Your task to perform on an android device: toggle priority inbox in the gmail app Image 0: 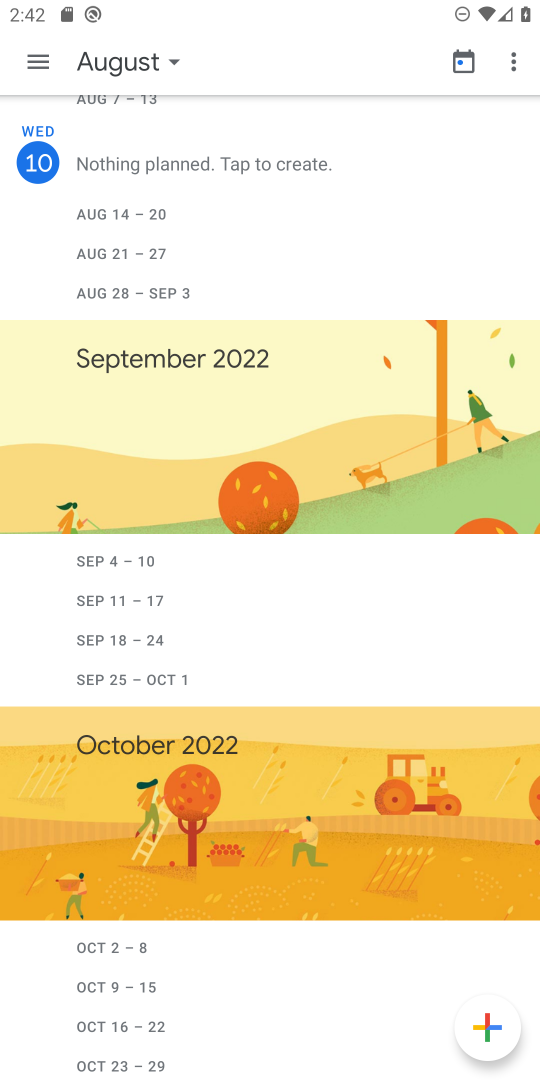
Step 0: press home button
Your task to perform on an android device: toggle priority inbox in the gmail app Image 1: 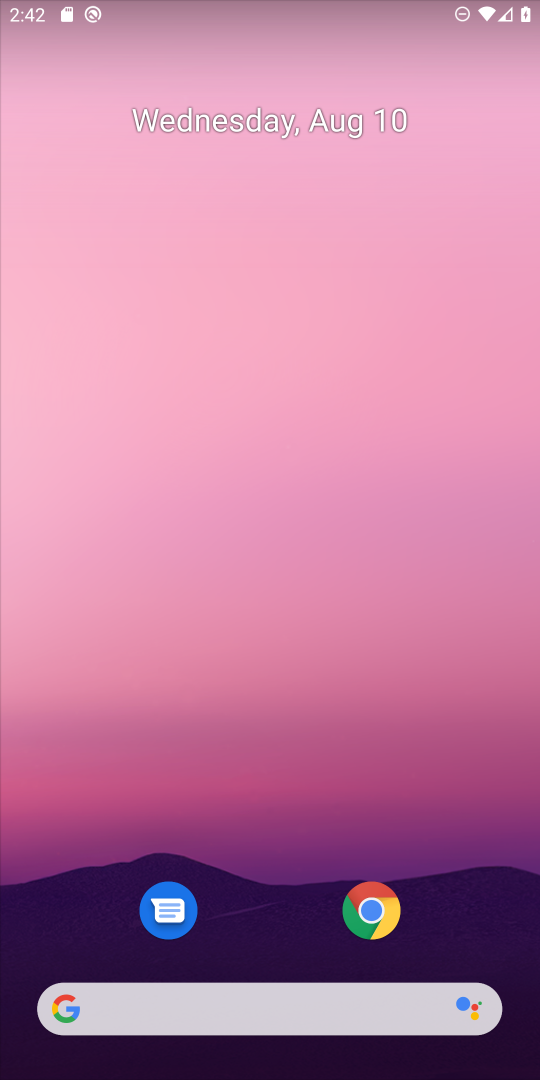
Step 1: drag from (258, 916) to (315, 343)
Your task to perform on an android device: toggle priority inbox in the gmail app Image 2: 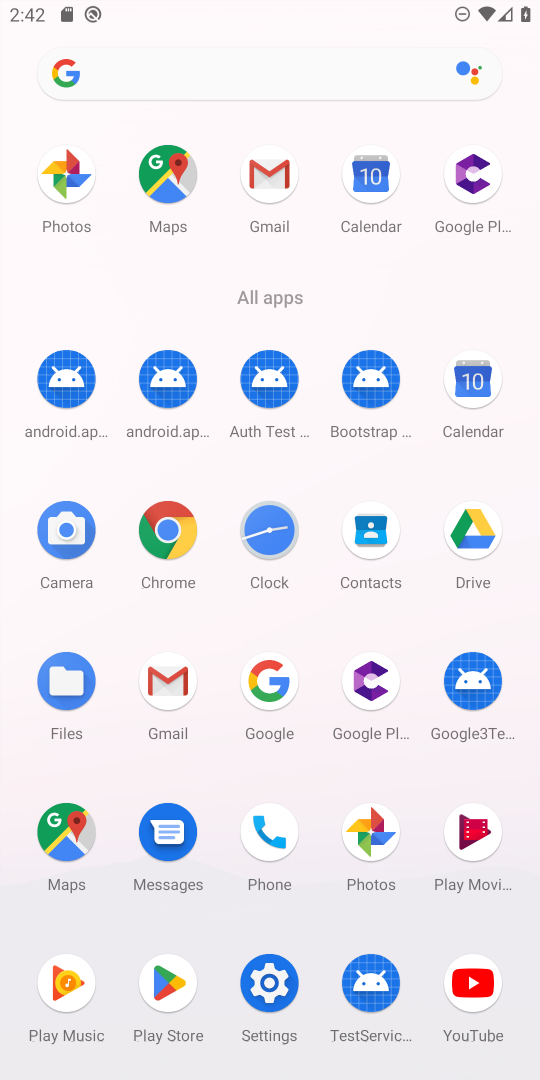
Step 2: click (279, 197)
Your task to perform on an android device: toggle priority inbox in the gmail app Image 3: 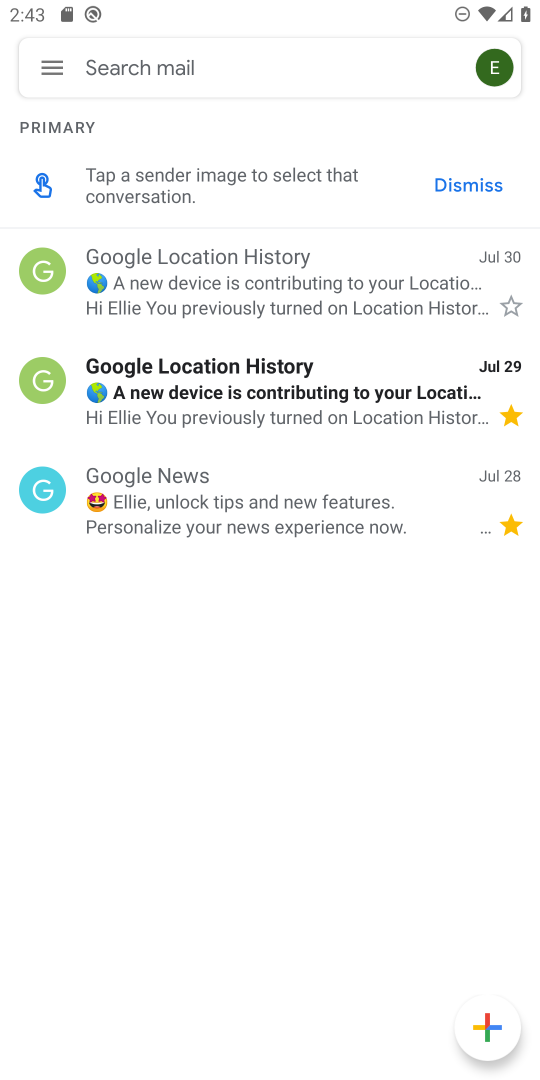
Step 3: click (60, 78)
Your task to perform on an android device: toggle priority inbox in the gmail app Image 4: 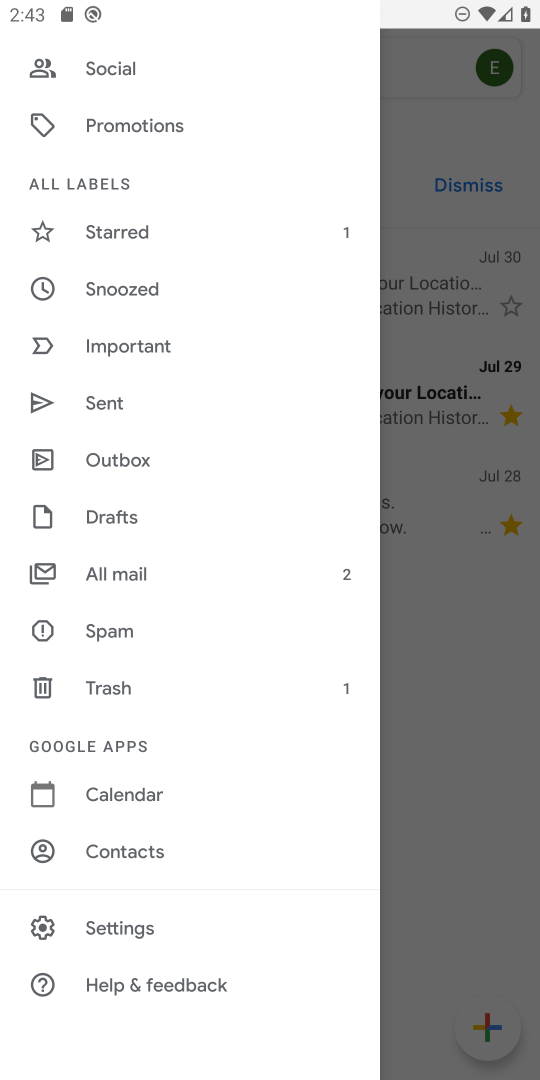
Step 4: click (108, 927)
Your task to perform on an android device: toggle priority inbox in the gmail app Image 5: 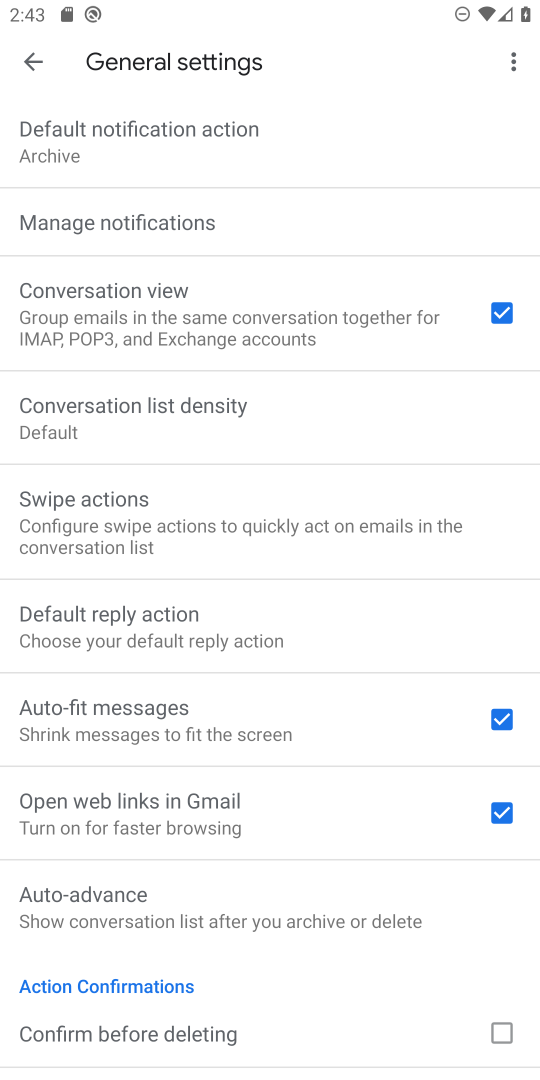
Step 5: click (196, 166)
Your task to perform on an android device: toggle priority inbox in the gmail app Image 6: 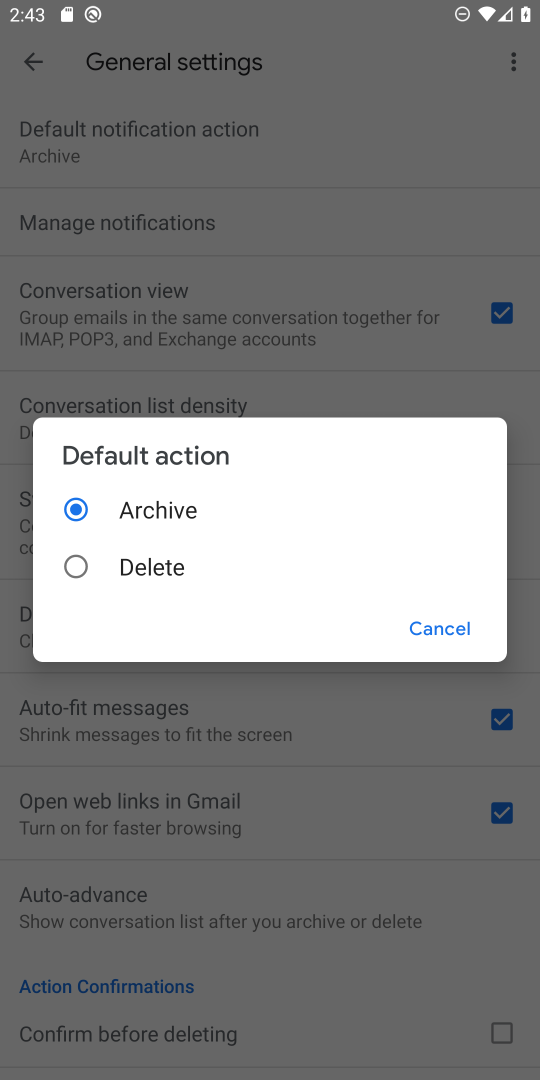
Step 6: click (432, 623)
Your task to perform on an android device: toggle priority inbox in the gmail app Image 7: 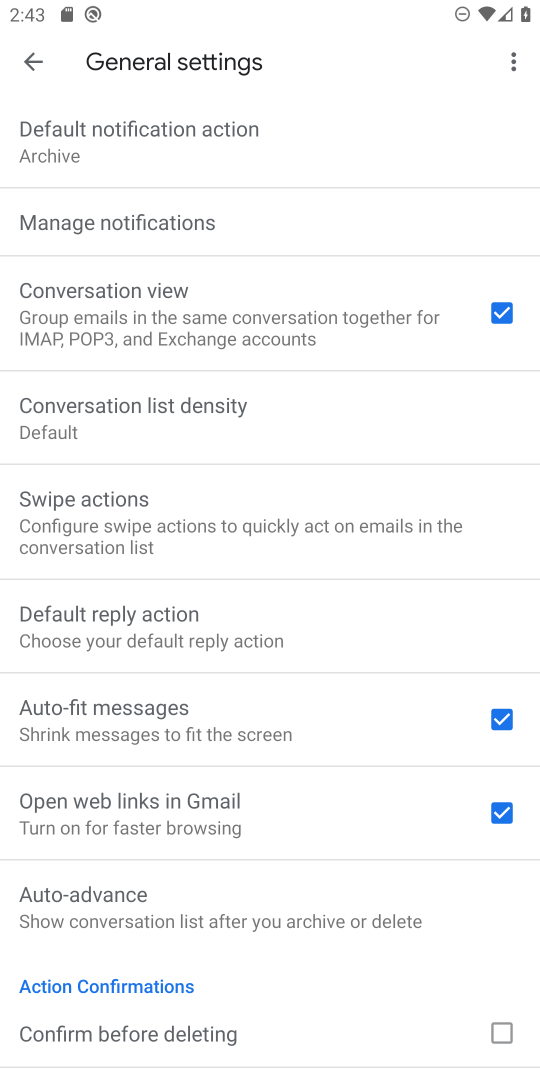
Step 7: task complete